Your task to perform on an android device: find snoozed emails in the gmail app Image 0: 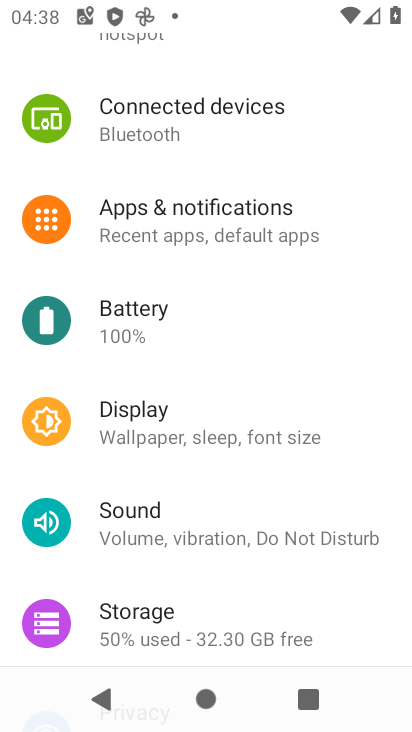
Step 0: press home button
Your task to perform on an android device: find snoozed emails in the gmail app Image 1: 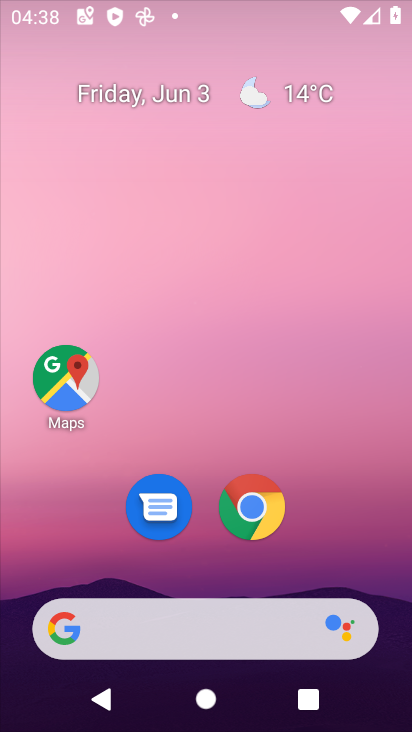
Step 1: drag from (319, 560) to (287, 121)
Your task to perform on an android device: find snoozed emails in the gmail app Image 2: 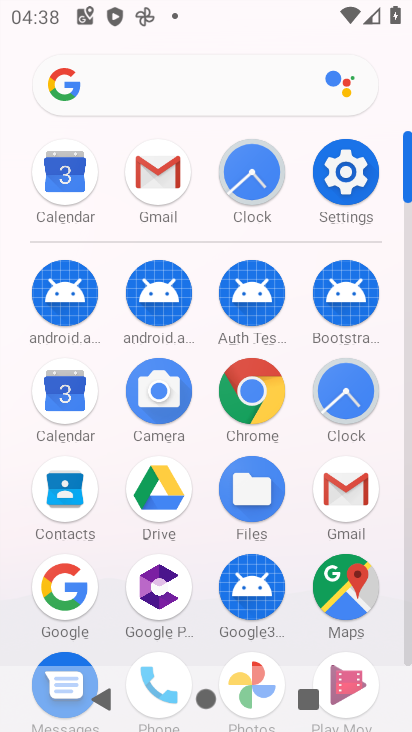
Step 2: click (159, 174)
Your task to perform on an android device: find snoozed emails in the gmail app Image 3: 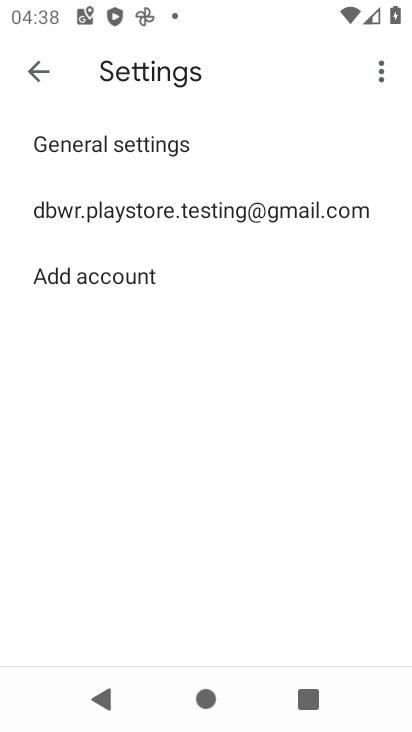
Step 3: click (89, 206)
Your task to perform on an android device: find snoozed emails in the gmail app Image 4: 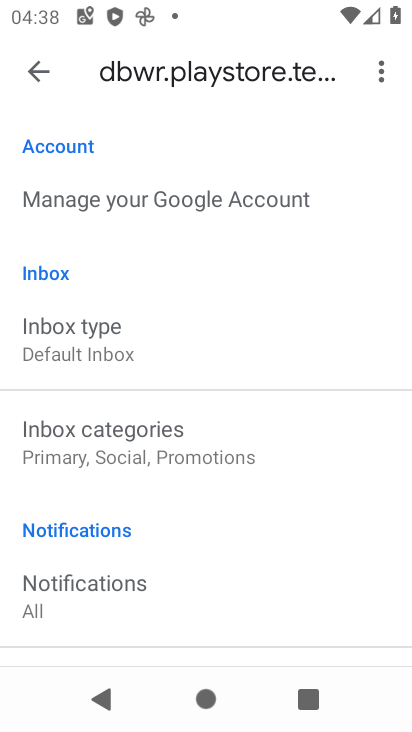
Step 4: click (29, 69)
Your task to perform on an android device: find snoozed emails in the gmail app Image 5: 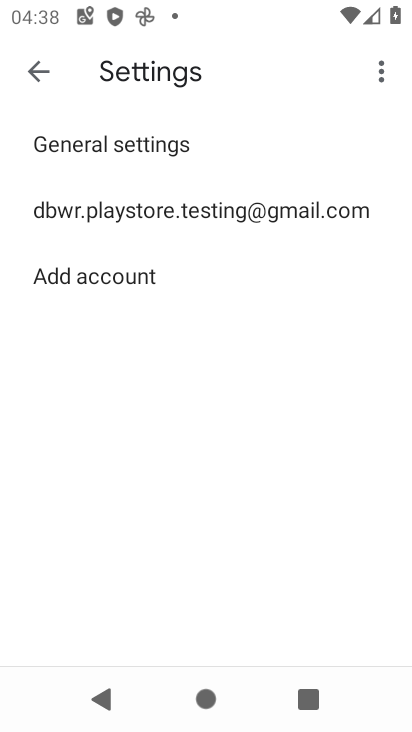
Step 5: click (36, 73)
Your task to perform on an android device: find snoozed emails in the gmail app Image 6: 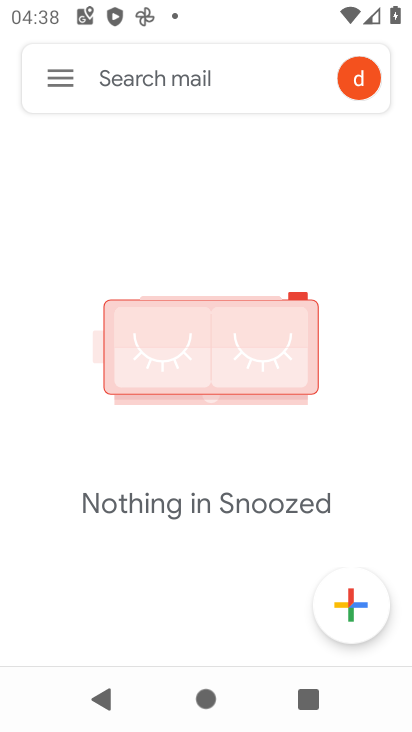
Step 6: click (36, 73)
Your task to perform on an android device: find snoozed emails in the gmail app Image 7: 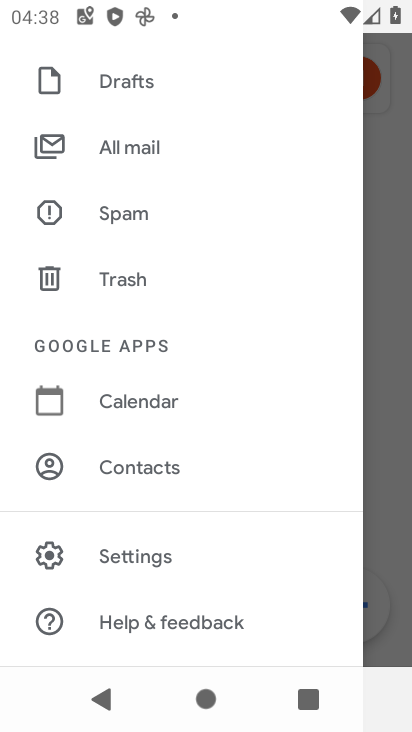
Step 7: drag from (254, 158) to (249, 503)
Your task to perform on an android device: find snoozed emails in the gmail app Image 8: 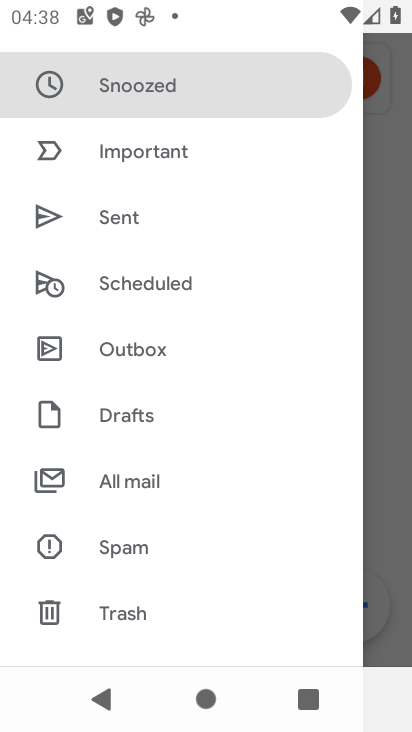
Step 8: click (138, 86)
Your task to perform on an android device: find snoozed emails in the gmail app Image 9: 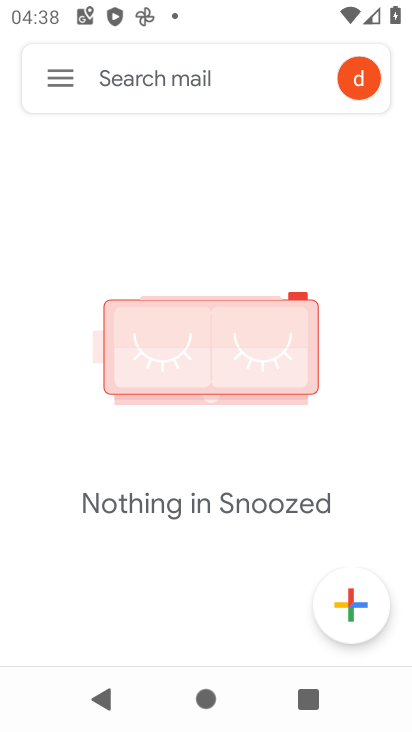
Step 9: task complete